Your task to perform on an android device: turn notification dots on Image 0: 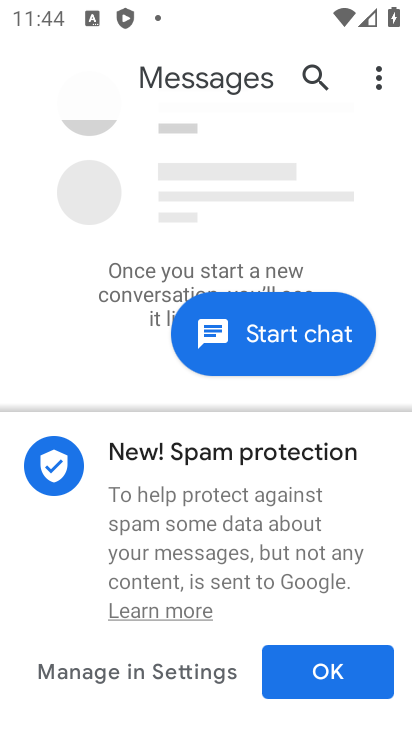
Step 0: press home button
Your task to perform on an android device: turn notification dots on Image 1: 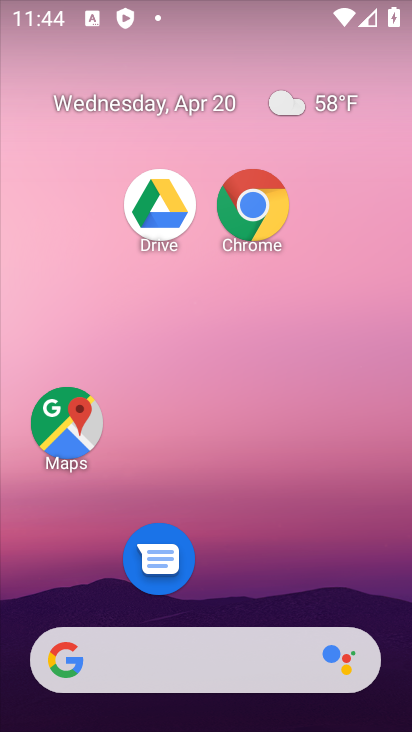
Step 1: drag from (278, 618) to (308, 16)
Your task to perform on an android device: turn notification dots on Image 2: 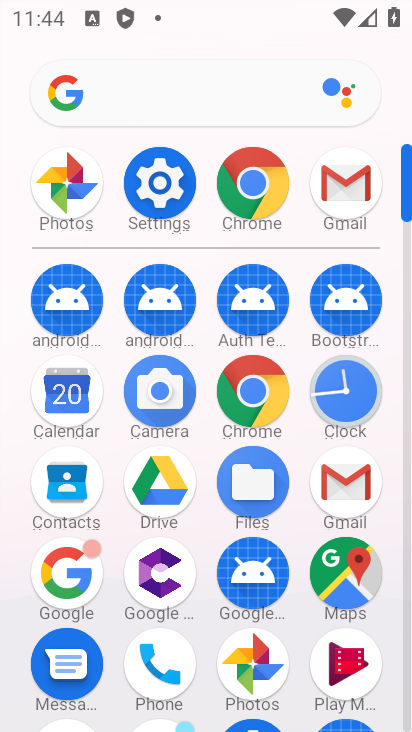
Step 2: drag from (282, 649) to (306, 1)
Your task to perform on an android device: turn notification dots on Image 3: 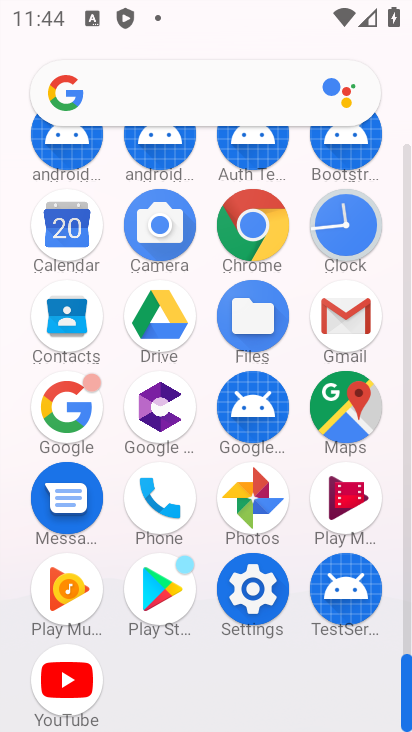
Step 3: click (247, 599)
Your task to perform on an android device: turn notification dots on Image 4: 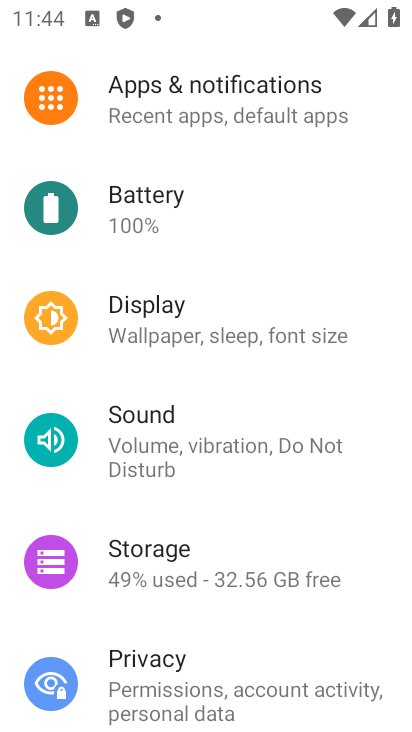
Step 4: click (225, 107)
Your task to perform on an android device: turn notification dots on Image 5: 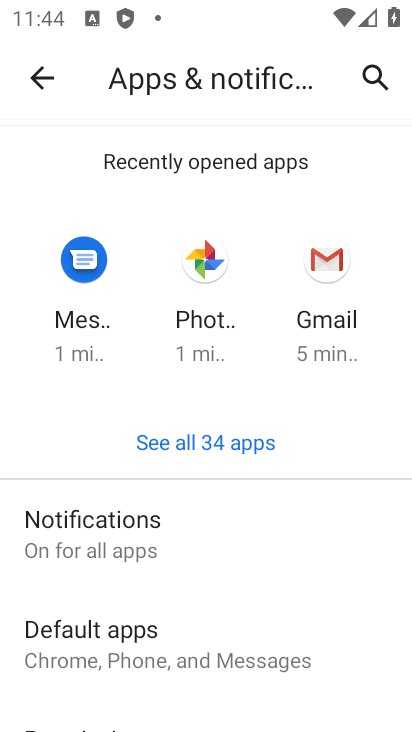
Step 5: drag from (193, 608) to (237, 124)
Your task to perform on an android device: turn notification dots on Image 6: 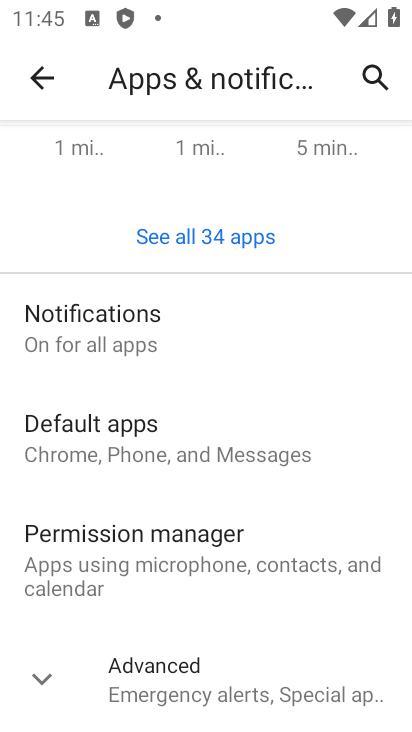
Step 6: click (166, 334)
Your task to perform on an android device: turn notification dots on Image 7: 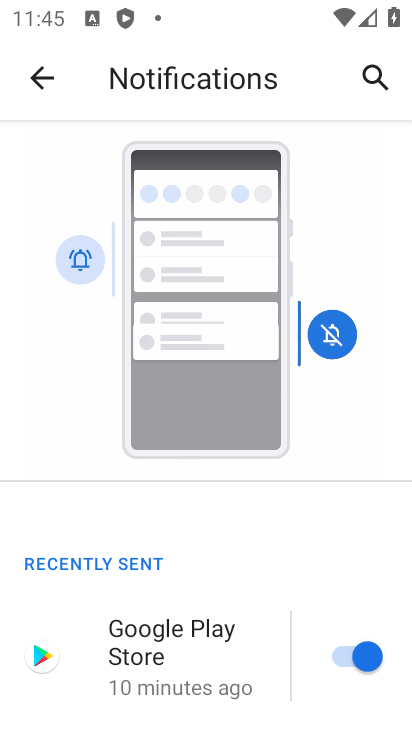
Step 7: drag from (206, 664) to (143, 11)
Your task to perform on an android device: turn notification dots on Image 8: 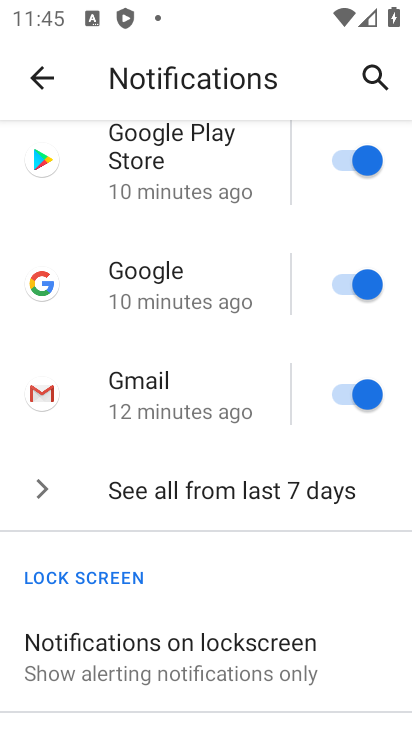
Step 8: drag from (177, 668) to (193, 106)
Your task to perform on an android device: turn notification dots on Image 9: 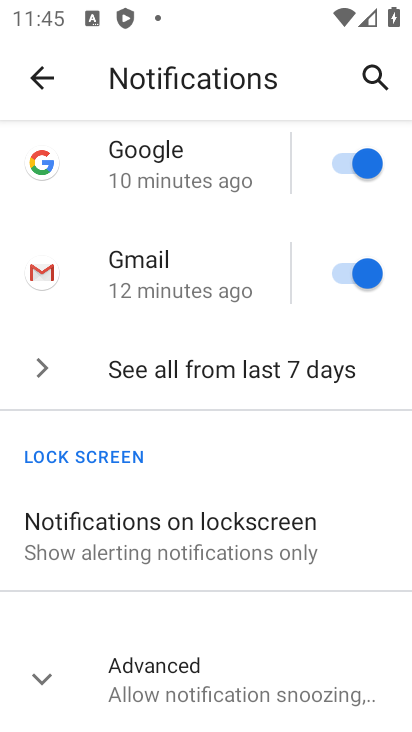
Step 9: click (193, 673)
Your task to perform on an android device: turn notification dots on Image 10: 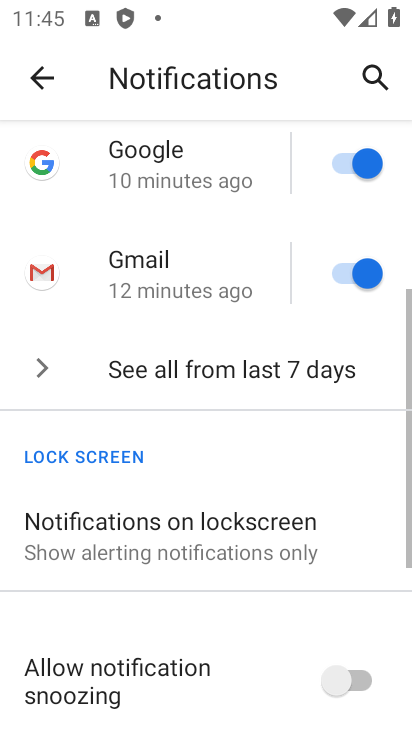
Step 10: task complete